Your task to perform on an android device: Open Google Maps Image 0: 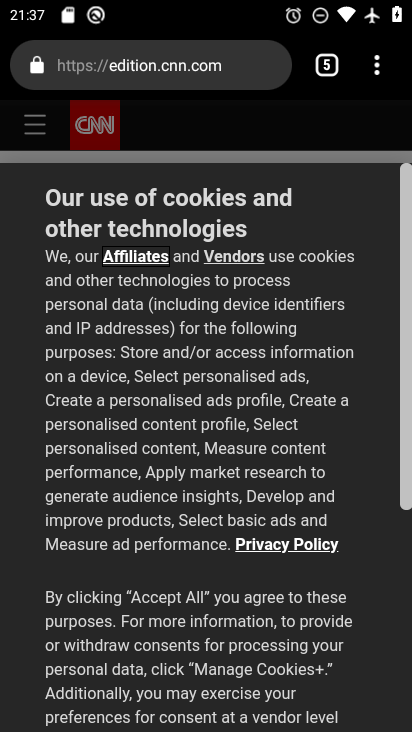
Step 0: press home button
Your task to perform on an android device: Open Google Maps Image 1: 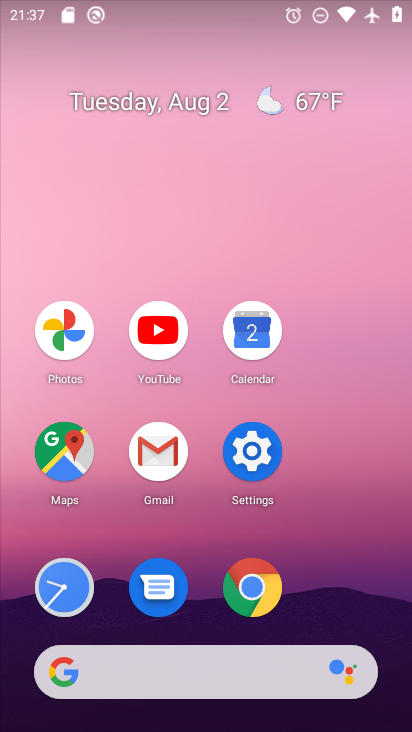
Step 1: click (62, 451)
Your task to perform on an android device: Open Google Maps Image 2: 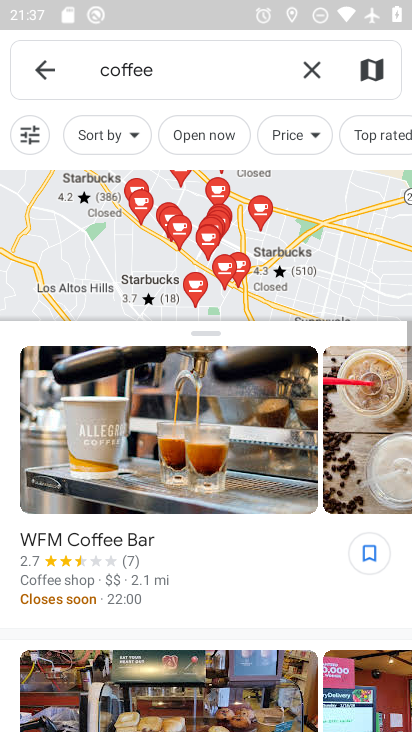
Step 2: click (37, 66)
Your task to perform on an android device: Open Google Maps Image 3: 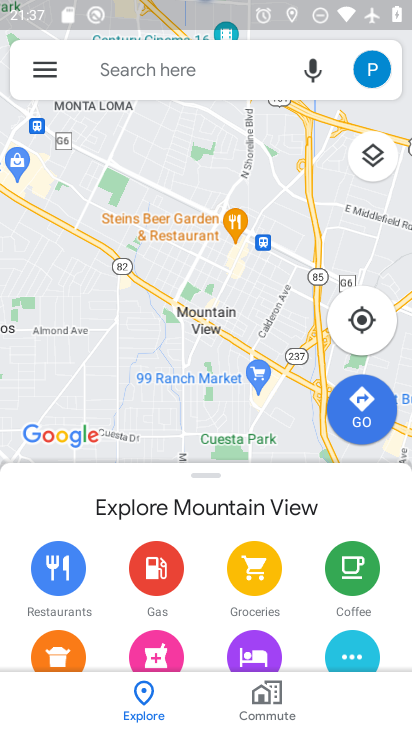
Step 3: task complete